Your task to perform on an android device: Search for the best vacuum on Amazon. Image 0: 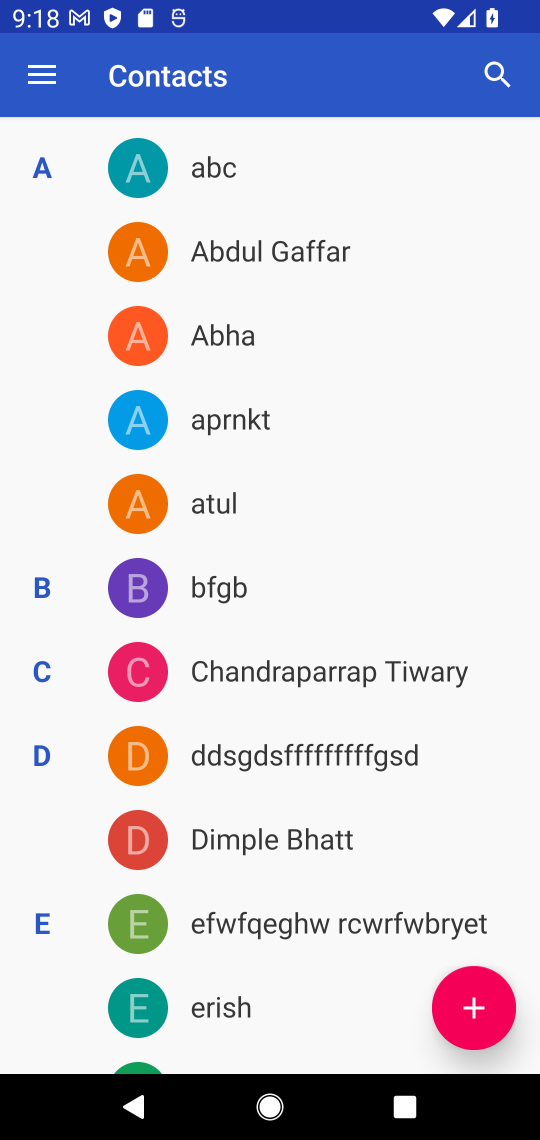
Step 0: press home button
Your task to perform on an android device: Search for the best vacuum on Amazon. Image 1: 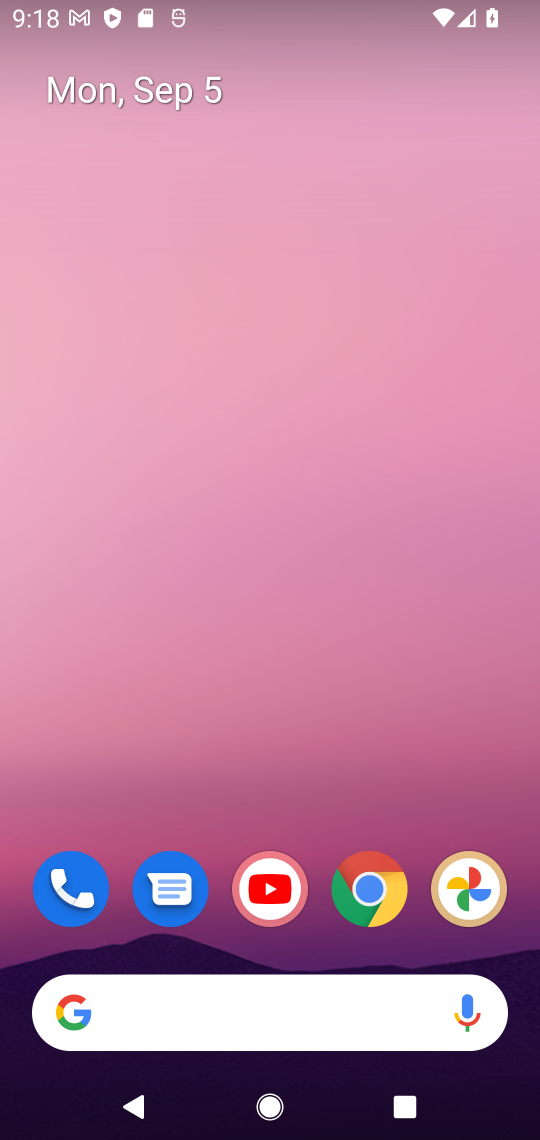
Step 1: click (278, 1015)
Your task to perform on an android device: Search for the best vacuum on Amazon. Image 2: 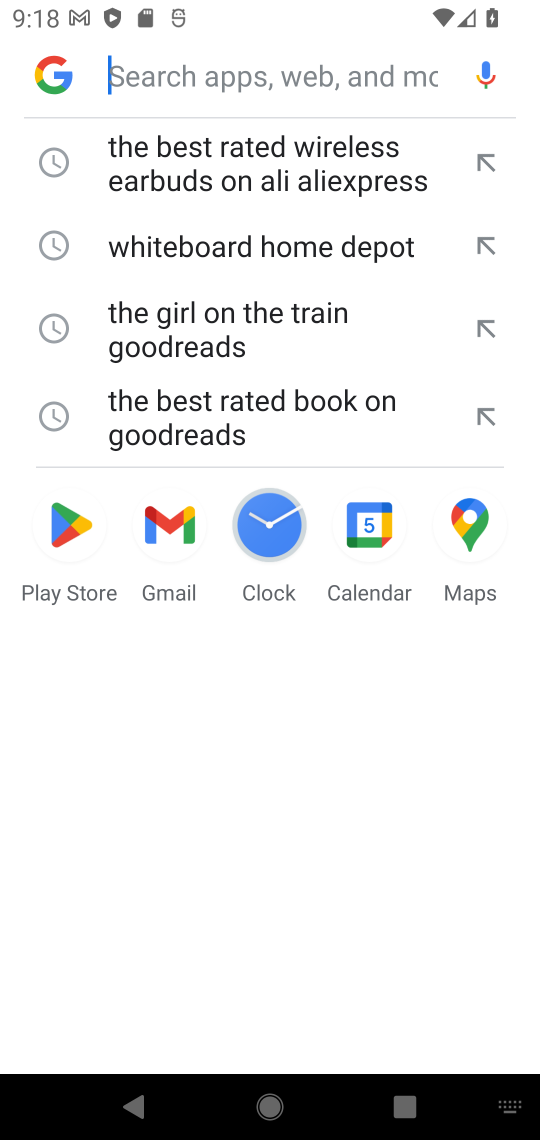
Step 2: type " the best vacuum on Amazon"
Your task to perform on an android device: Search for the best vacuum on Amazon. Image 3: 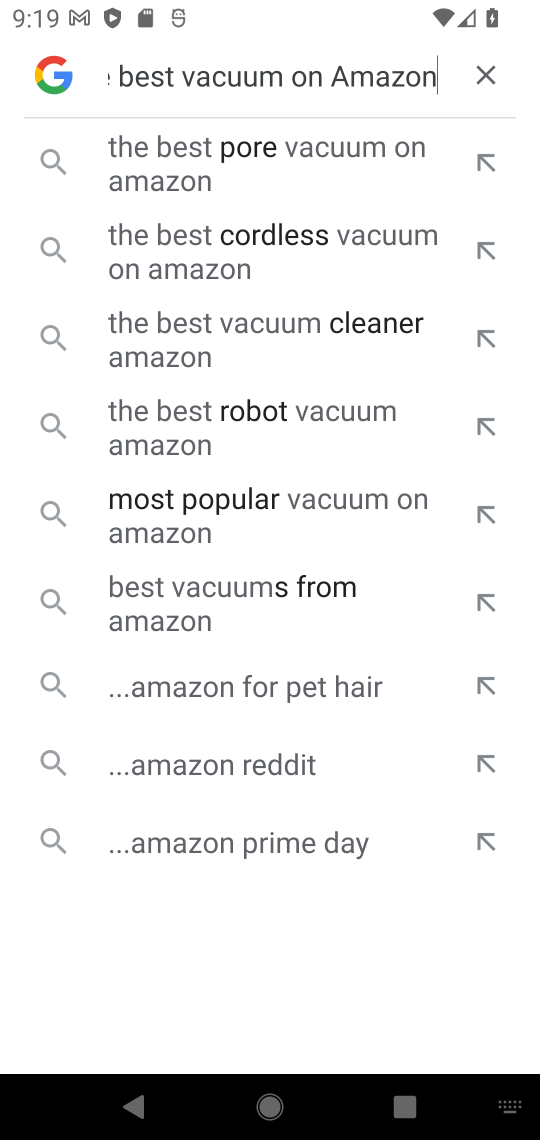
Step 3: click (238, 161)
Your task to perform on an android device: Search for the best vacuum on Amazon. Image 4: 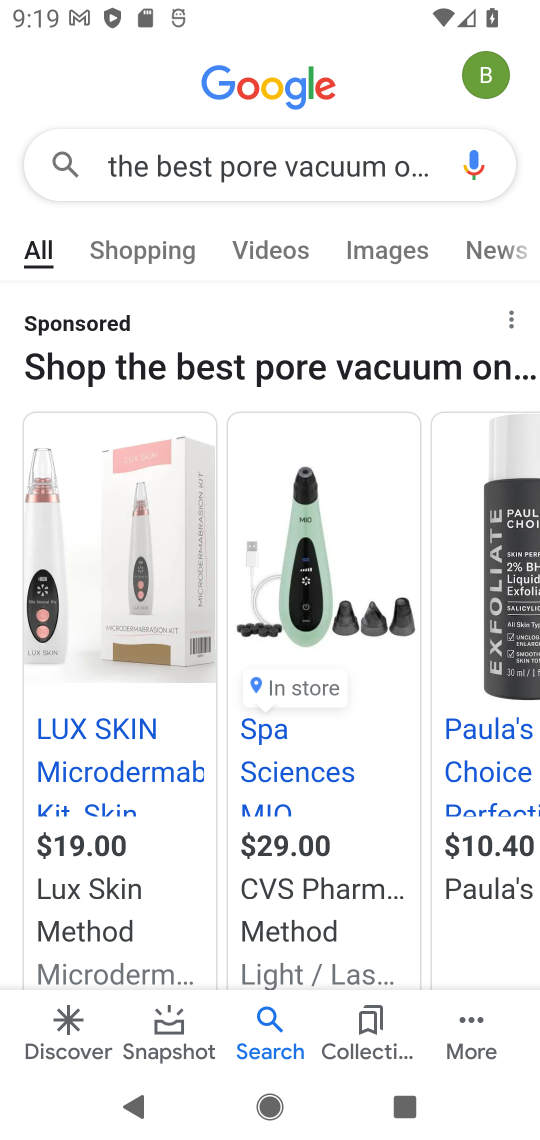
Step 4: task complete